Your task to perform on an android device: Check the news Image 0: 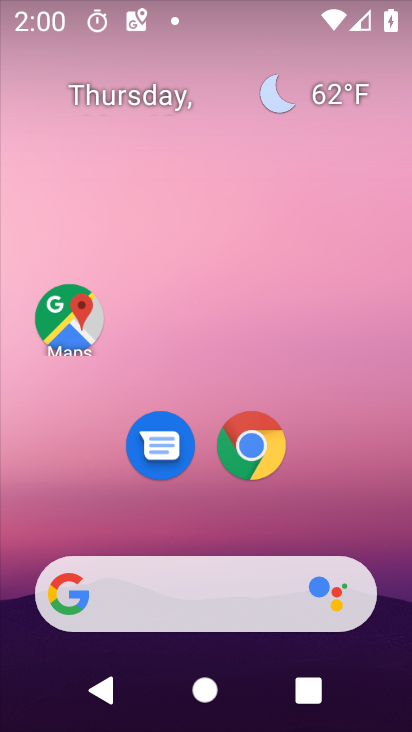
Step 0: drag from (40, 200) to (383, 156)
Your task to perform on an android device: Check the news Image 1: 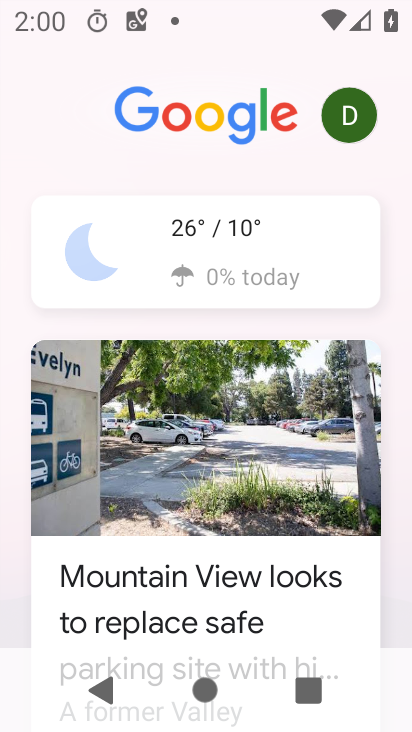
Step 1: task complete